Your task to perform on an android device: Open Youtube and go to "Your channel" Image 0: 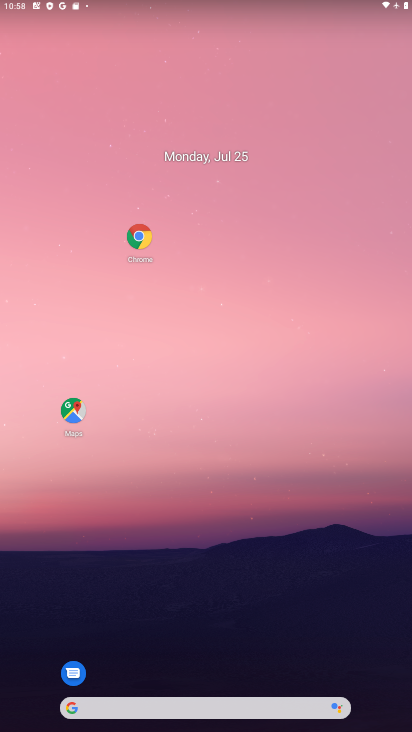
Step 0: drag from (265, 660) to (277, 152)
Your task to perform on an android device: Open Youtube and go to "Your channel" Image 1: 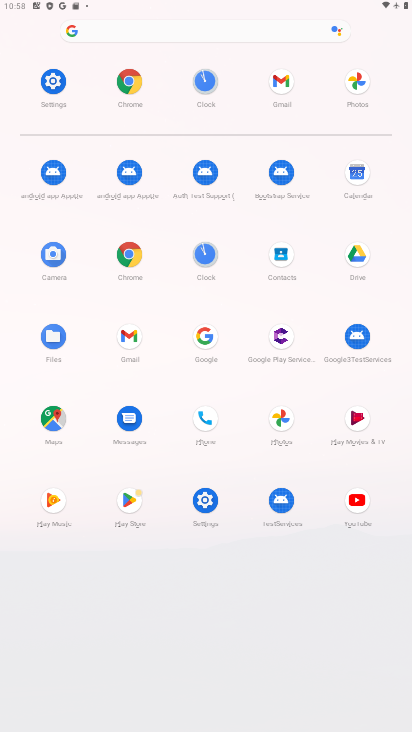
Step 1: click (360, 488)
Your task to perform on an android device: Open Youtube and go to "Your channel" Image 2: 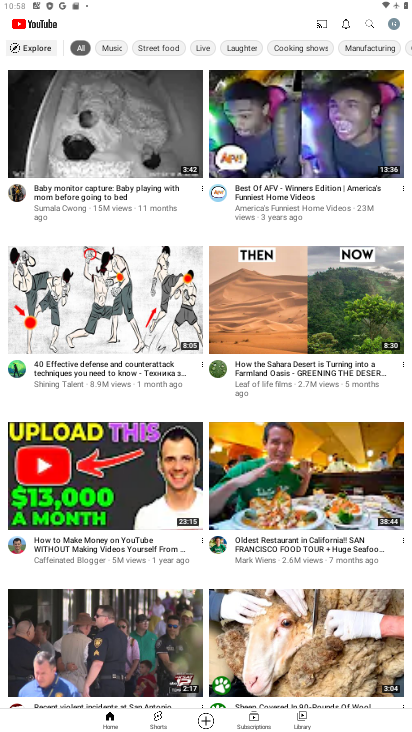
Step 2: click (390, 28)
Your task to perform on an android device: Open Youtube and go to "Your channel" Image 3: 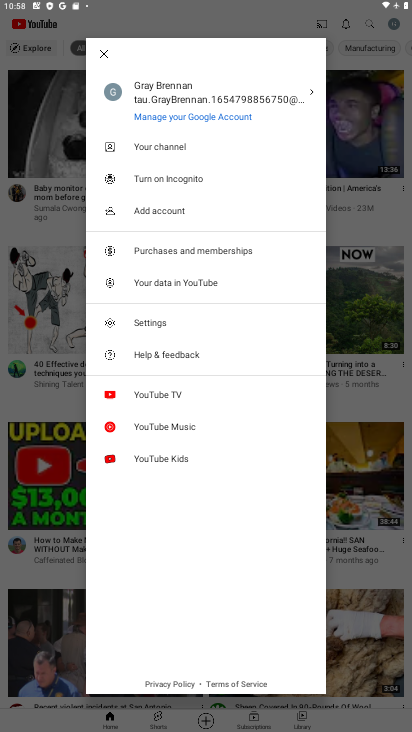
Step 3: click (182, 148)
Your task to perform on an android device: Open Youtube and go to "Your channel" Image 4: 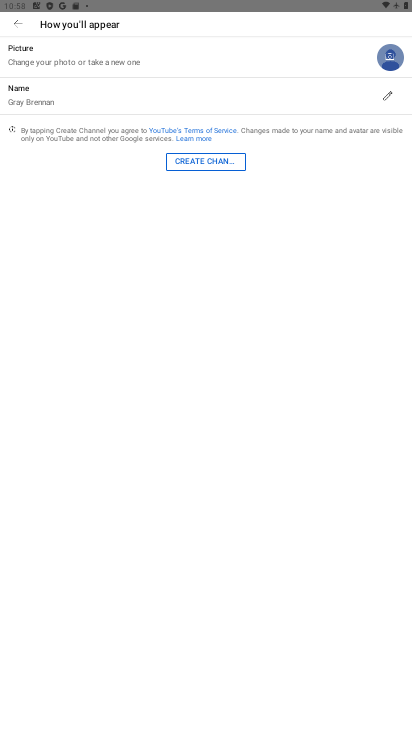
Step 4: task complete